Your task to perform on an android device: Open settings Image 0: 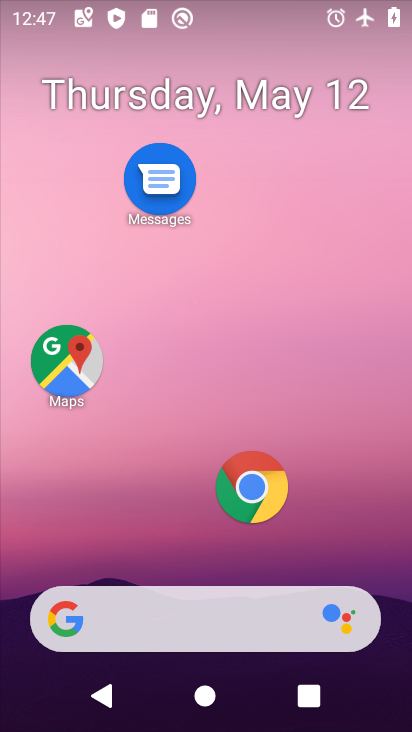
Step 0: drag from (204, 551) to (181, 178)
Your task to perform on an android device: Open settings Image 1: 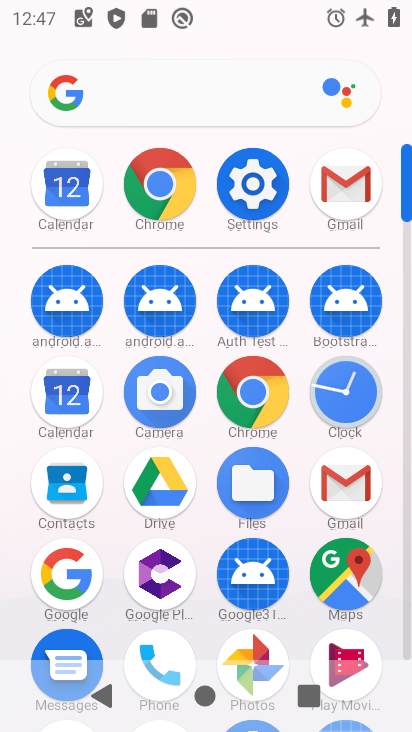
Step 1: click (250, 187)
Your task to perform on an android device: Open settings Image 2: 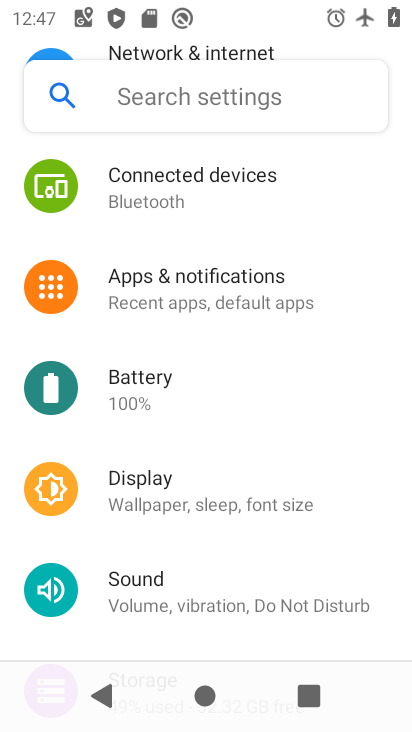
Step 2: task complete